Your task to perform on an android device: toggle sleep mode Image 0: 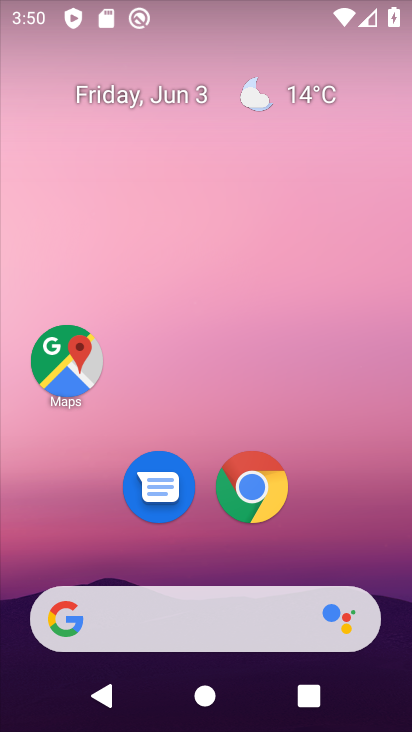
Step 0: drag from (201, 526) to (261, 14)
Your task to perform on an android device: toggle sleep mode Image 1: 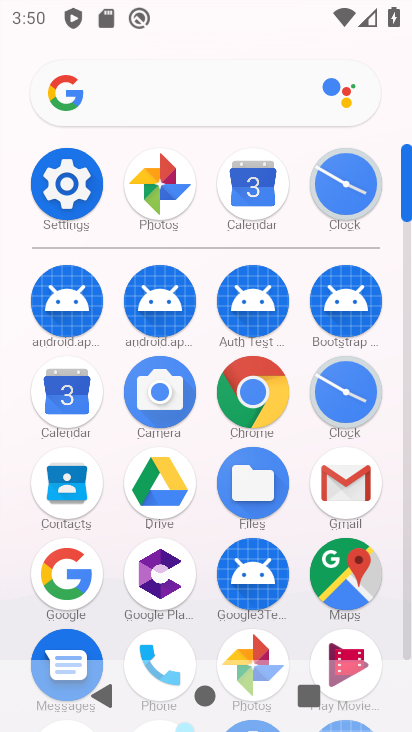
Step 1: click (69, 491)
Your task to perform on an android device: toggle sleep mode Image 2: 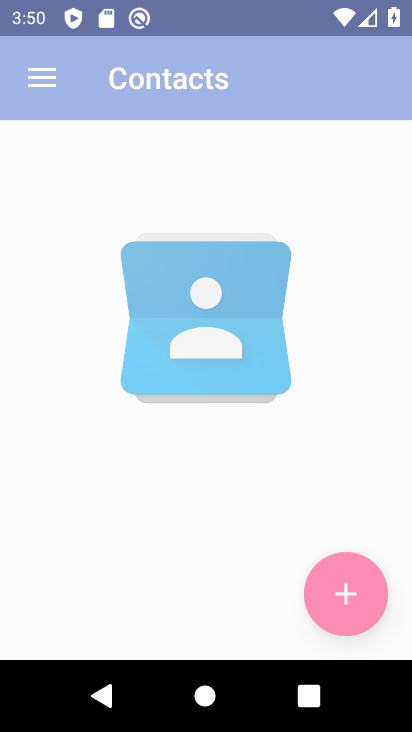
Step 2: press back button
Your task to perform on an android device: toggle sleep mode Image 3: 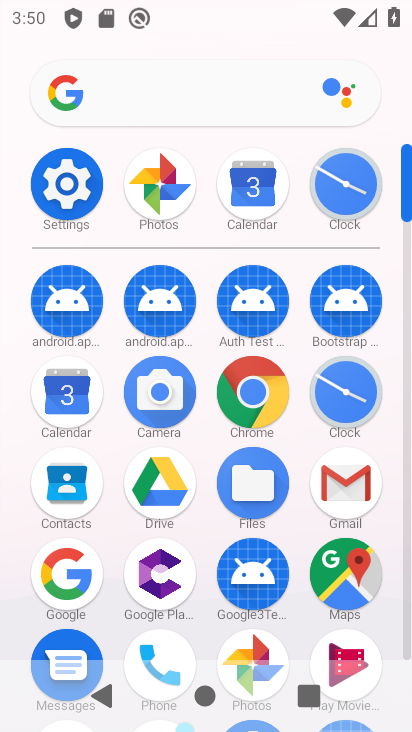
Step 3: press back button
Your task to perform on an android device: toggle sleep mode Image 4: 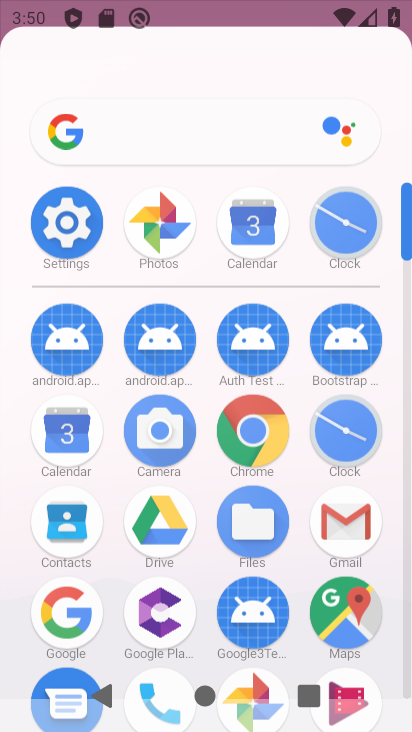
Step 4: click (71, 179)
Your task to perform on an android device: toggle sleep mode Image 5: 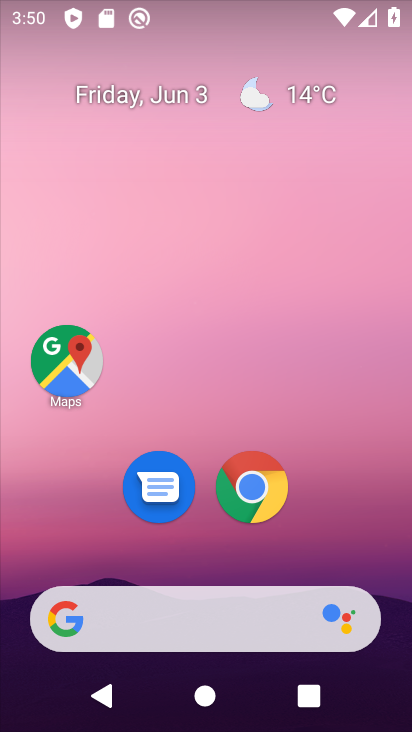
Step 5: drag from (216, 579) to (217, 84)
Your task to perform on an android device: toggle sleep mode Image 6: 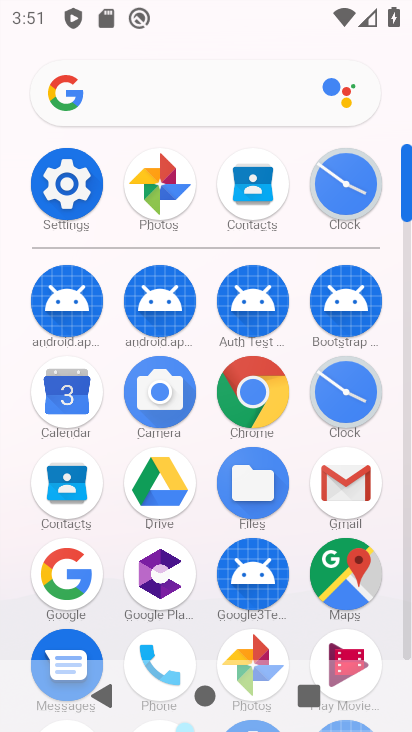
Step 6: click (61, 186)
Your task to perform on an android device: toggle sleep mode Image 7: 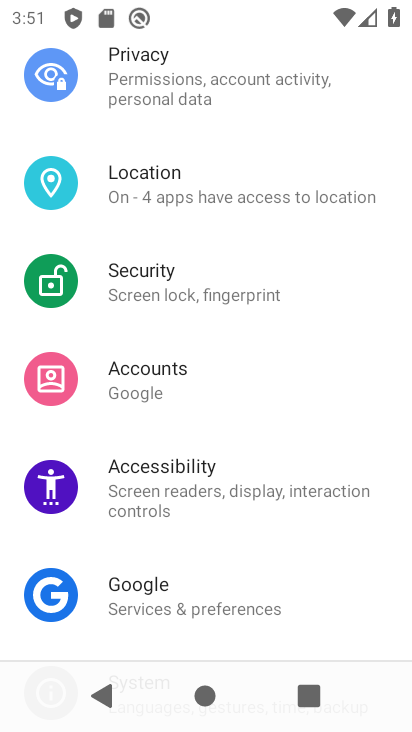
Step 7: drag from (215, 120) to (199, 515)
Your task to perform on an android device: toggle sleep mode Image 8: 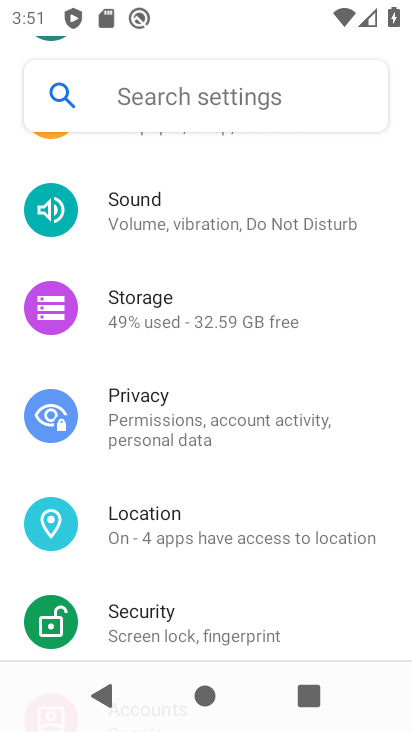
Step 8: click (190, 97)
Your task to perform on an android device: toggle sleep mode Image 9: 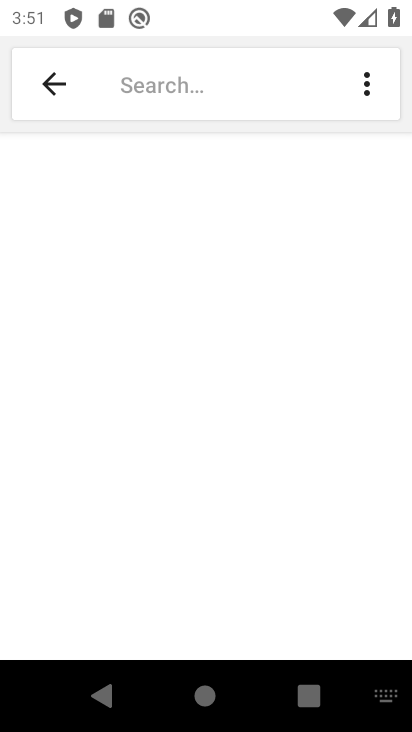
Step 9: type "sleep mode"
Your task to perform on an android device: toggle sleep mode Image 10: 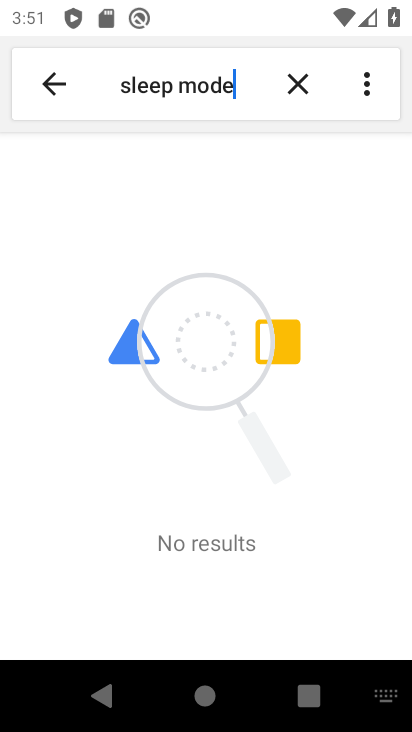
Step 10: task complete